Your task to perform on an android device: uninstall "ZOOM Cloud Meetings" Image 0: 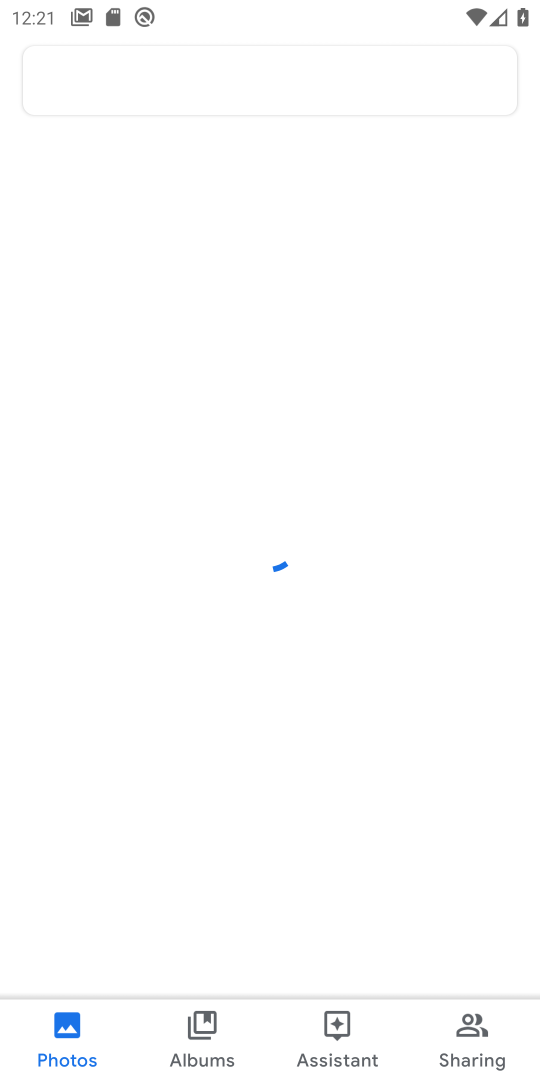
Step 0: press home button
Your task to perform on an android device: uninstall "ZOOM Cloud Meetings" Image 1: 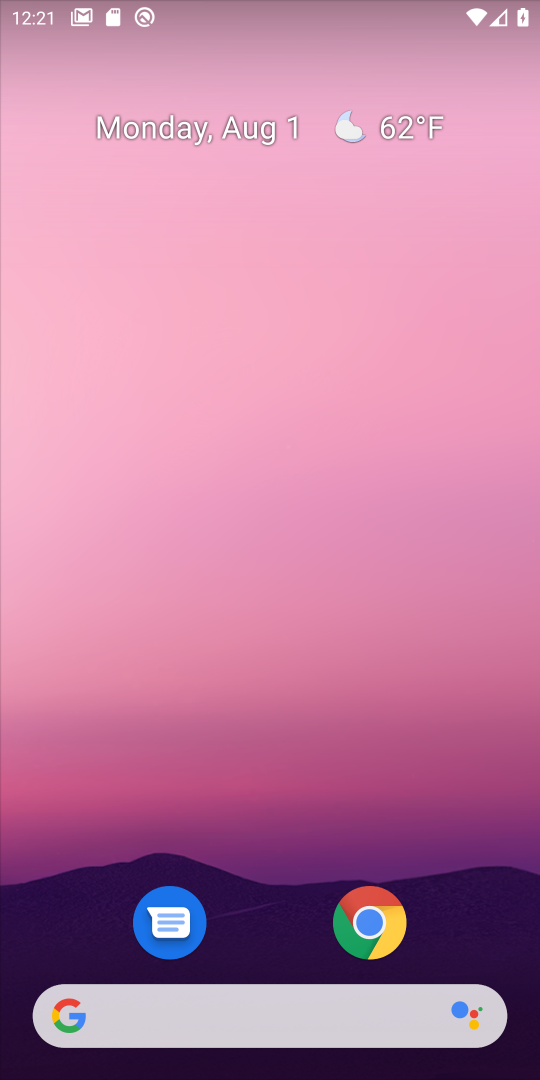
Step 1: drag from (269, 878) to (278, 212)
Your task to perform on an android device: uninstall "ZOOM Cloud Meetings" Image 2: 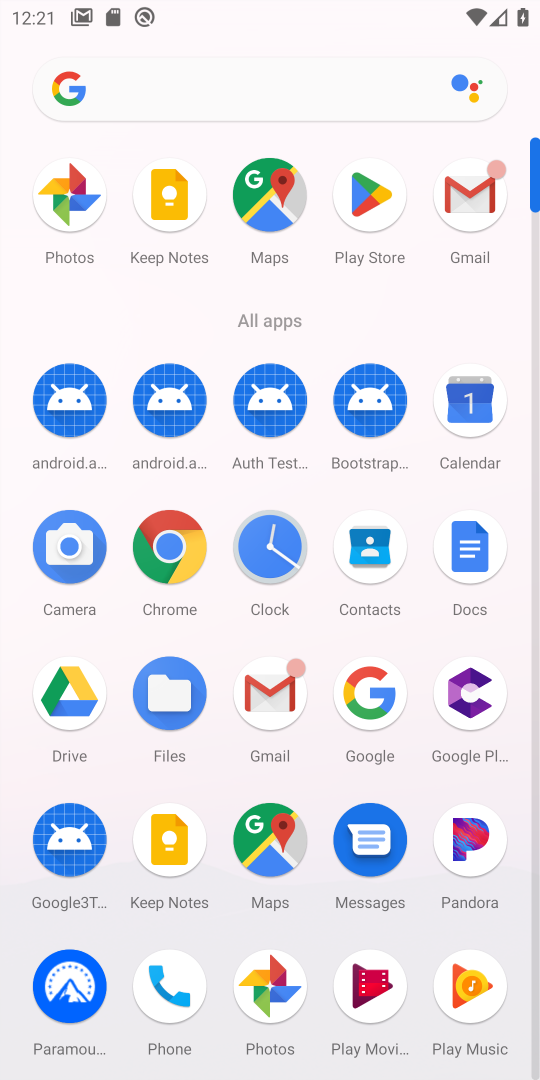
Step 2: click (370, 181)
Your task to perform on an android device: uninstall "ZOOM Cloud Meetings" Image 3: 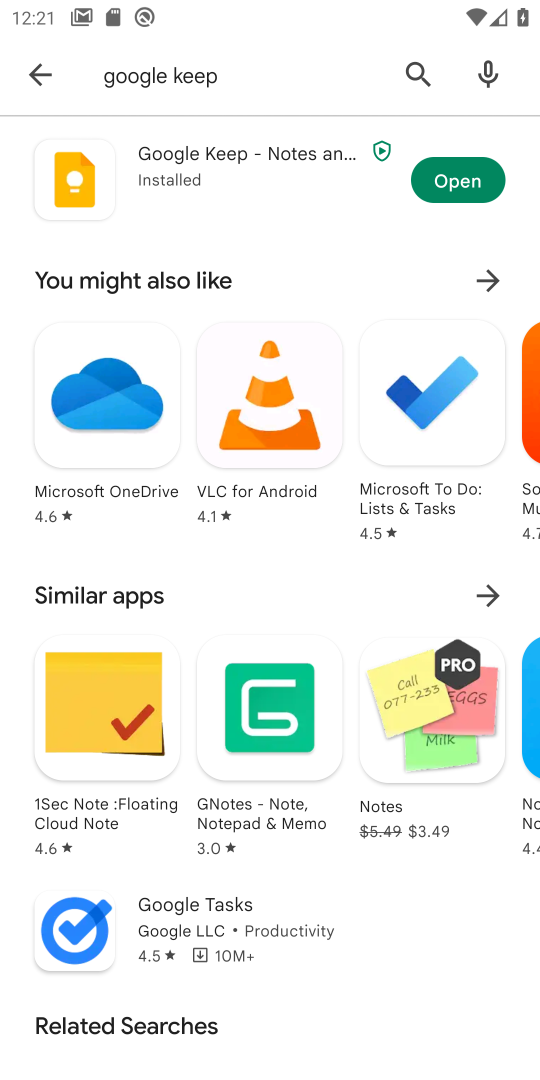
Step 3: click (436, 64)
Your task to perform on an android device: uninstall "ZOOM Cloud Meetings" Image 4: 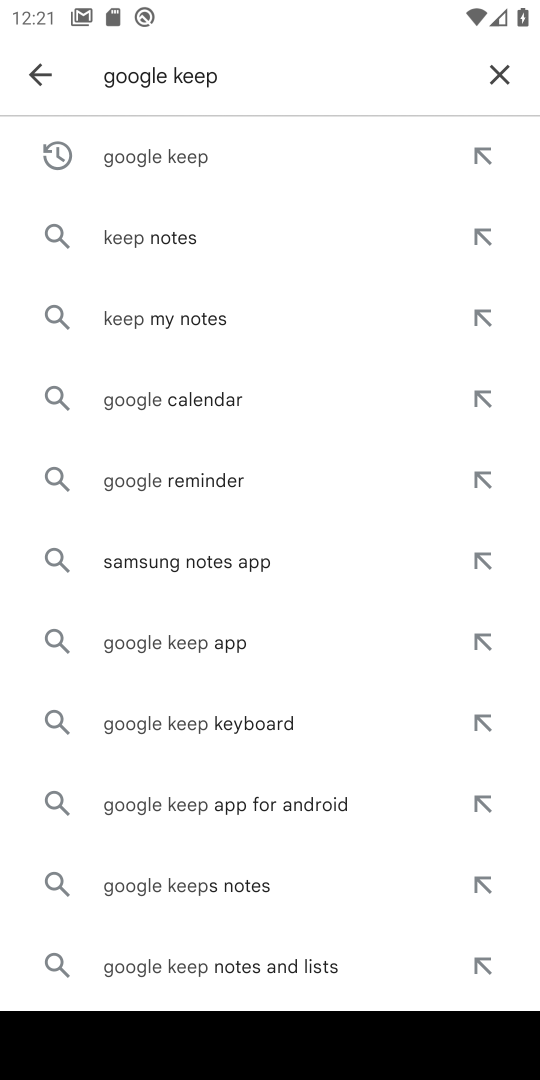
Step 4: click (482, 75)
Your task to perform on an android device: uninstall "ZOOM Cloud Meetings" Image 5: 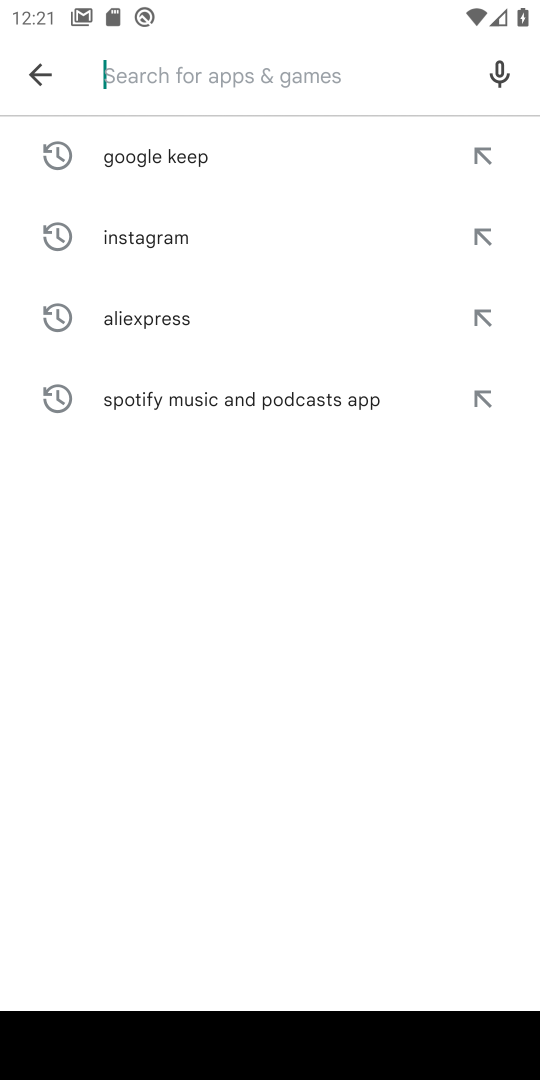
Step 5: type "ZOOM Cloud Meetings"
Your task to perform on an android device: uninstall "ZOOM Cloud Meetings" Image 6: 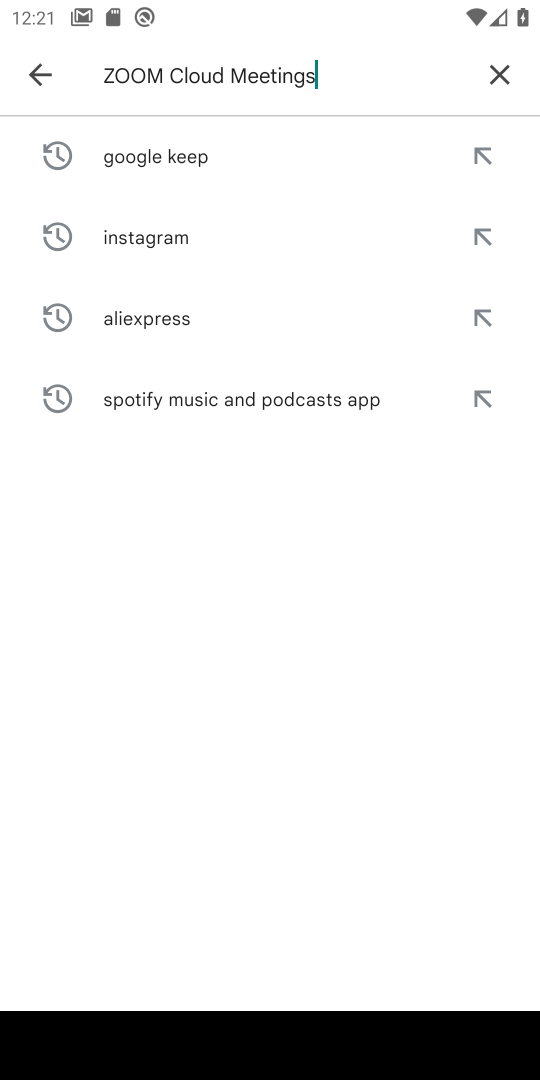
Step 6: type ""
Your task to perform on an android device: uninstall "ZOOM Cloud Meetings" Image 7: 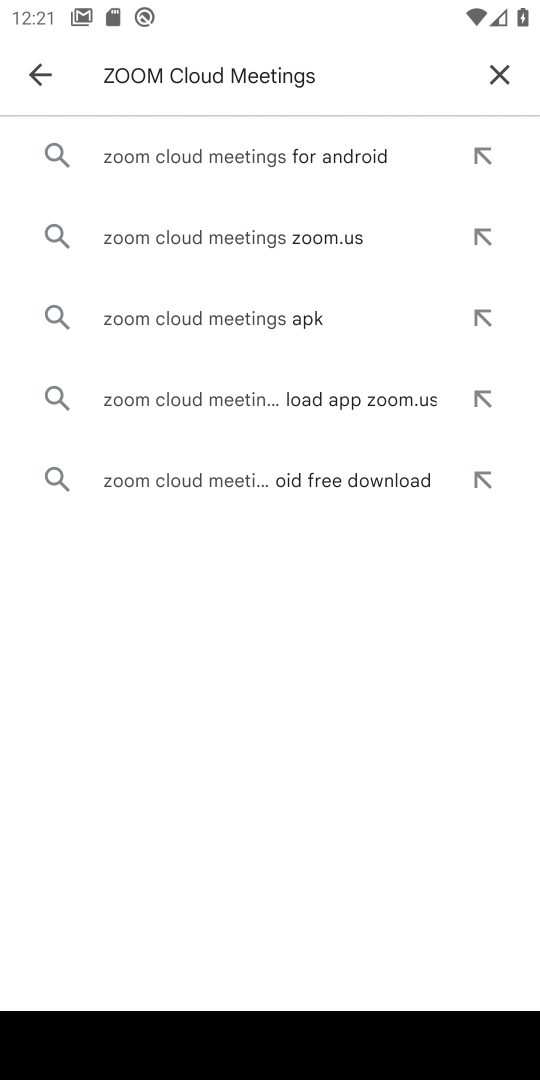
Step 7: click (295, 155)
Your task to perform on an android device: uninstall "ZOOM Cloud Meetings" Image 8: 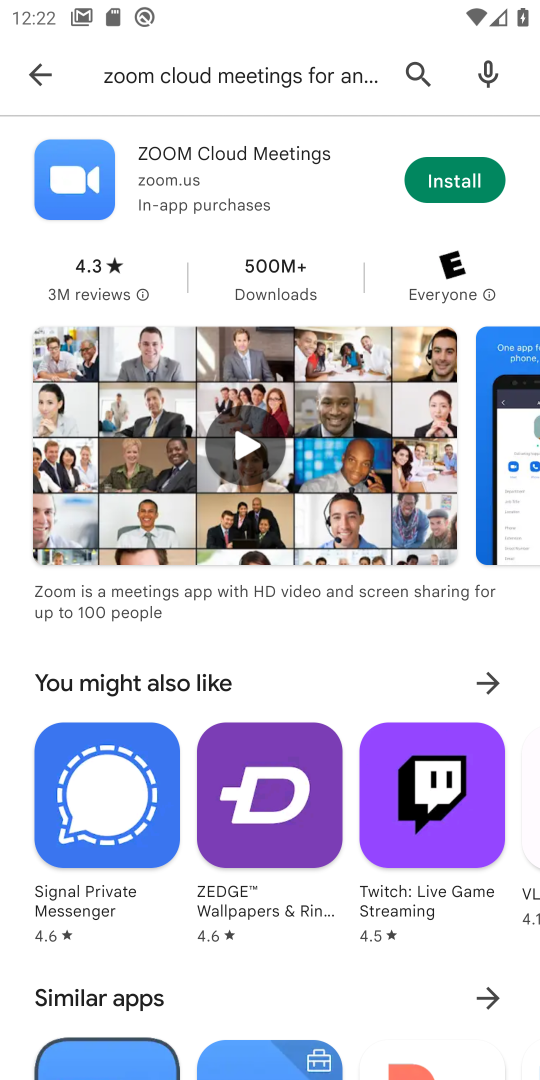
Step 8: task complete